Your task to perform on an android device: Do I have any events tomorrow? Image 0: 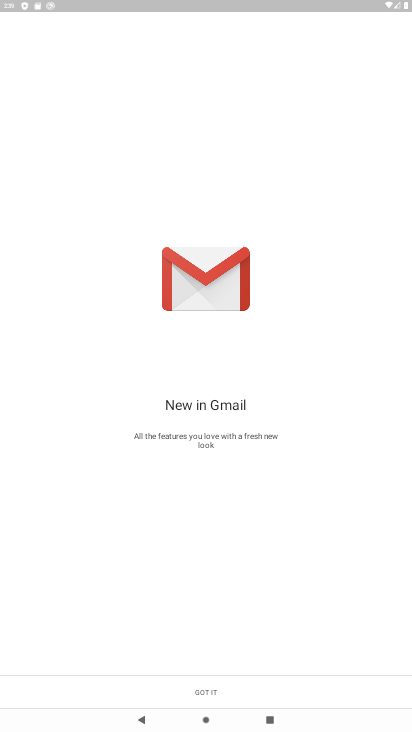
Step 0: click (273, 692)
Your task to perform on an android device: Do I have any events tomorrow? Image 1: 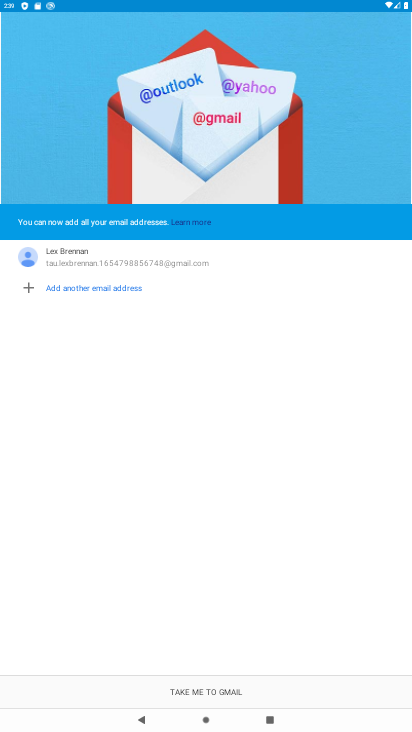
Step 1: press home button
Your task to perform on an android device: Do I have any events tomorrow? Image 2: 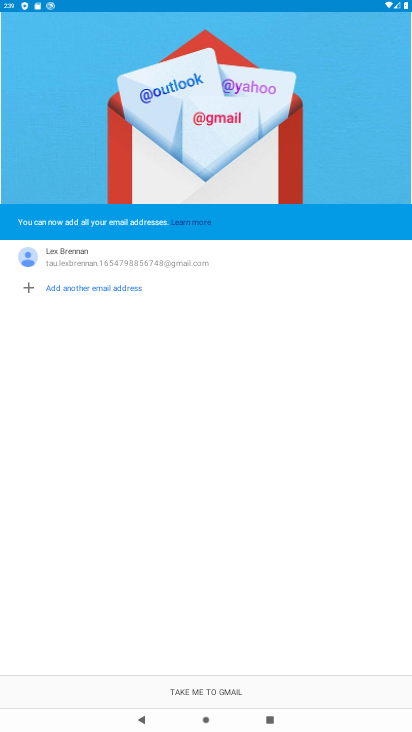
Step 2: press home button
Your task to perform on an android device: Do I have any events tomorrow? Image 3: 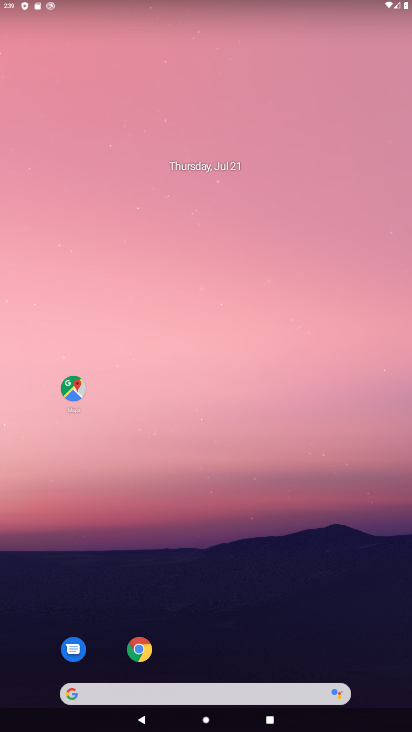
Step 3: drag from (281, 618) to (209, 71)
Your task to perform on an android device: Do I have any events tomorrow? Image 4: 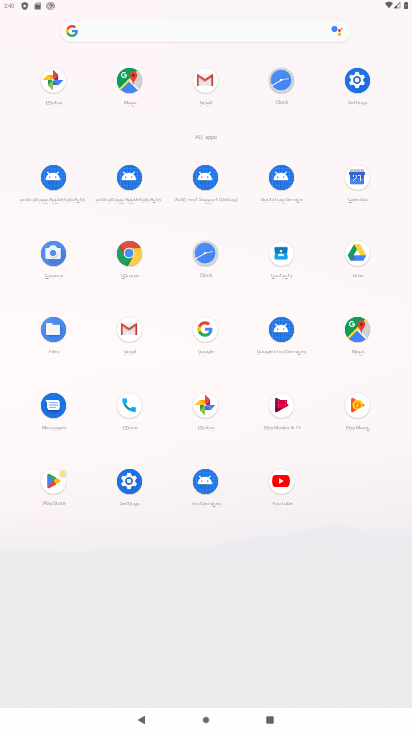
Step 4: click (358, 174)
Your task to perform on an android device: Do I have any events tomorrow? Image 5: 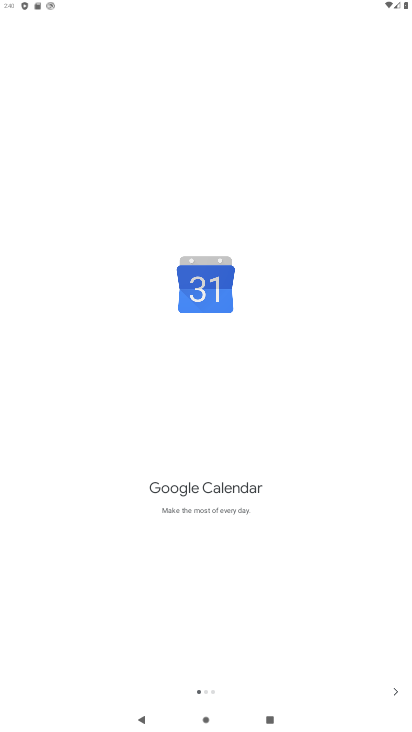
Step 5: click (394, 691)
Your task to perform on an android device: Do I have any events tomorrow? Image 6: 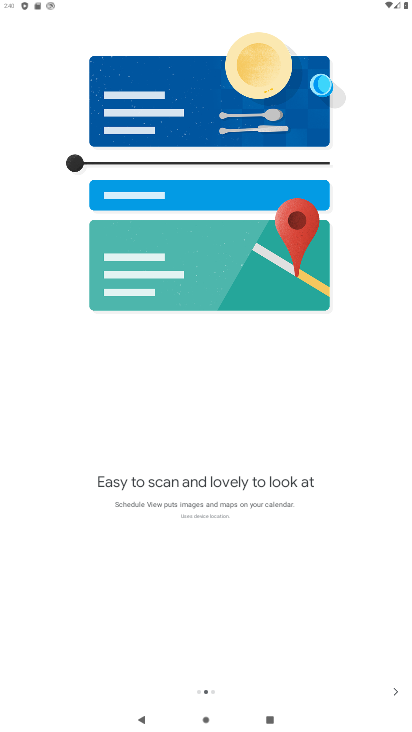
Step 6: click (394, 691)
Your task to perform on an android device: Do I have any events tomorrow? Image 7: 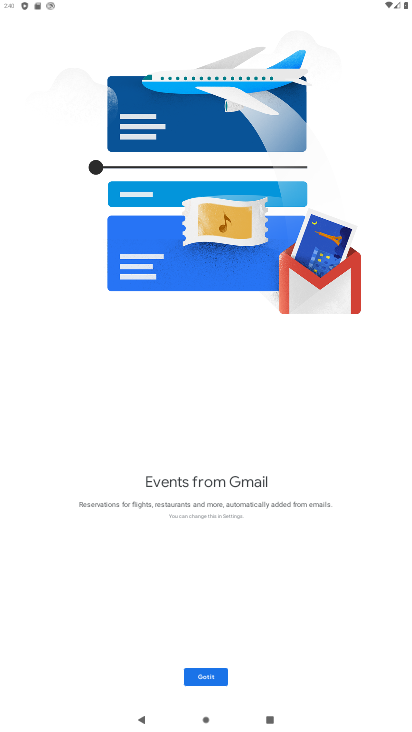
Step 7: click (215, 674)
Your task to perform on an android device: Do I have any events tomorrow? Image 8: 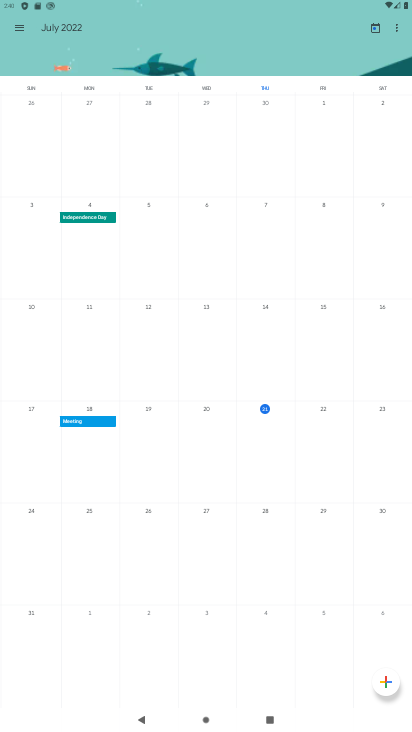
Step 8: click (19, 25)
Your task to perform on an android device: Do I have any events tomorrow? Image 9: 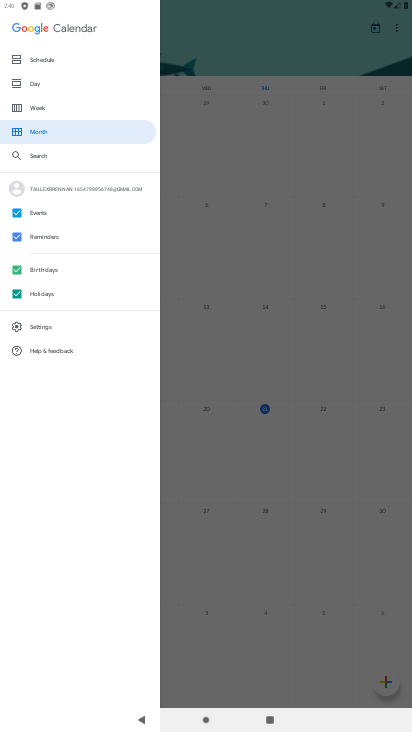
Step 9: click (10, 292)
Your task to perform on an android device: Do I have any events tomorrow? Image 10: 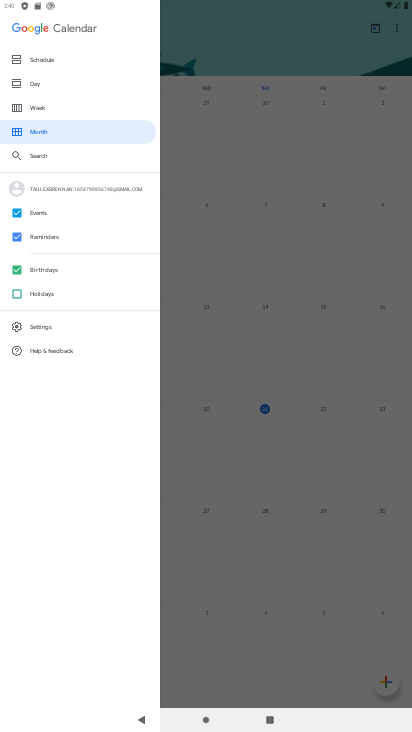
Step 10: click (15, 269)
Your task to perform on an android device: Do I have any events tomorrow? Image 11: 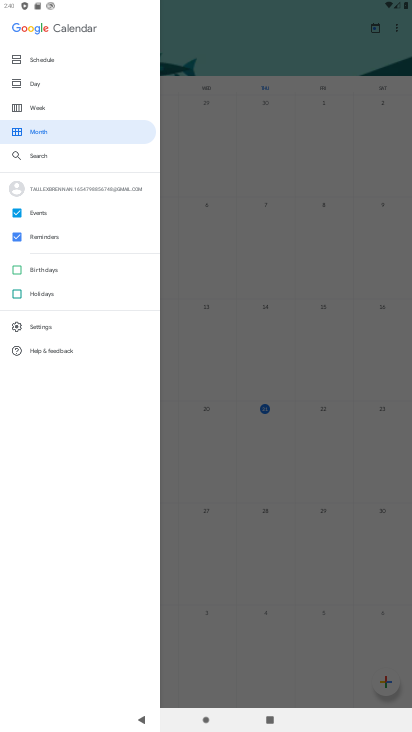
Step 11: click (14, 240)
Your task to perform on an android device: Do I have any events tomorrow? Image 12: 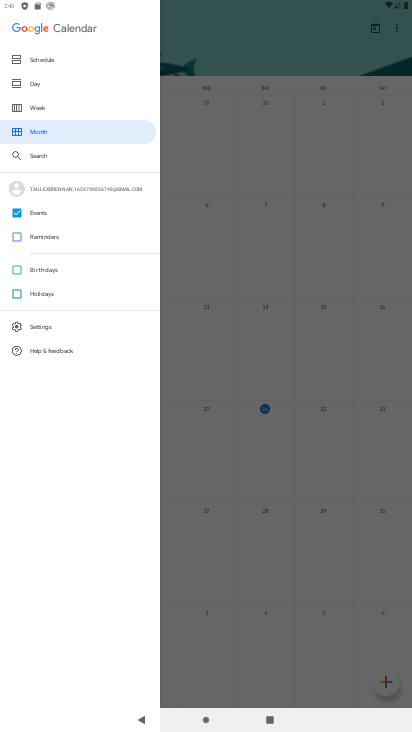
Step 12: click (49, 79)
Your task to perform on an android device: Do I have any events tomorrow? Image 13: 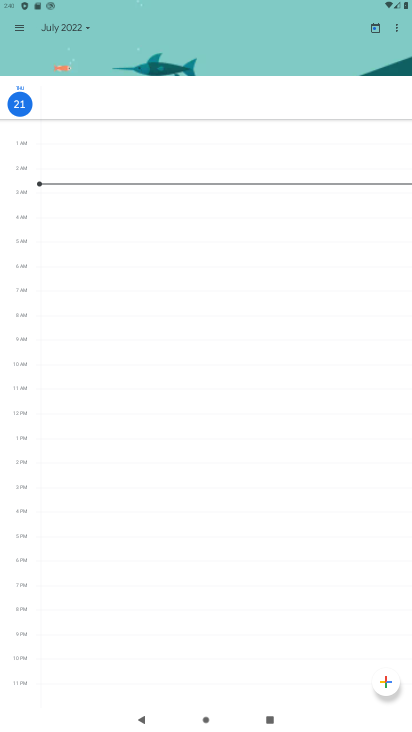
Step 13: task complete